Your task to perform on an android device: Open Android settings Image 0: 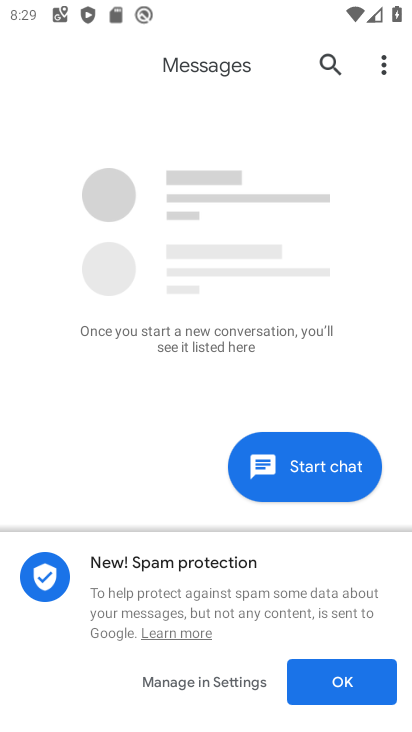
Step 0: press back button
Your task to perform on an android device: Open Android settings Image 1: 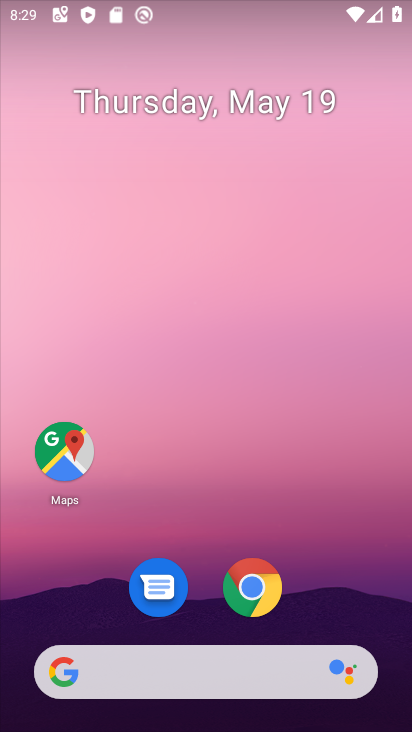
Step 1: drag from (322, 594) to (238, 26)
Your task to perform on an android device: Open Android settings Image 2: 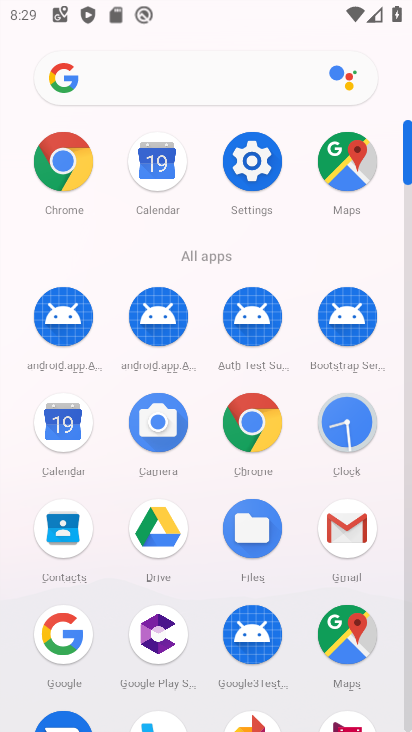
Step 2: drag from (11, 590) to (4, 247)
Your task to perform on an android device: Open Android settings Image 3: 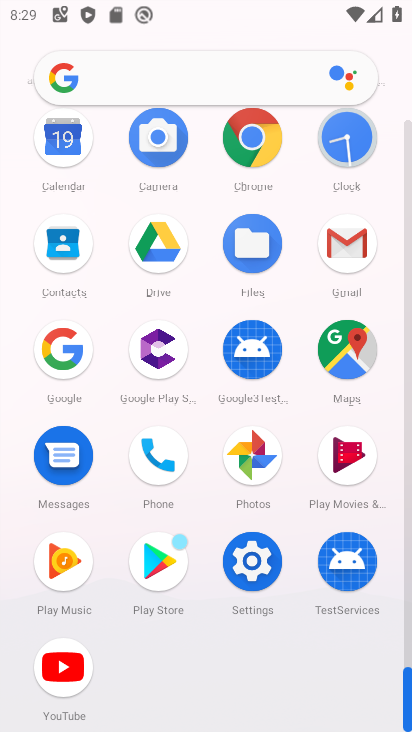
Step 3: click (251, 557)
Your task to perform on an android device: Open Android settings Image 4: 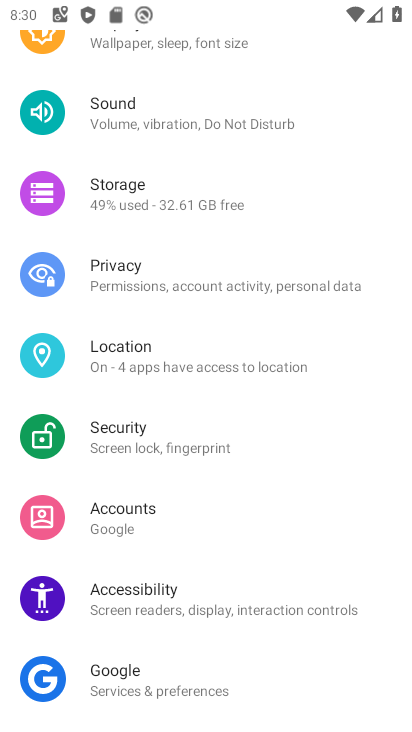
Step 4: drag from (254, 634) to (280, 120)
Your task to perform on an android device: Open Android settings Image 5: 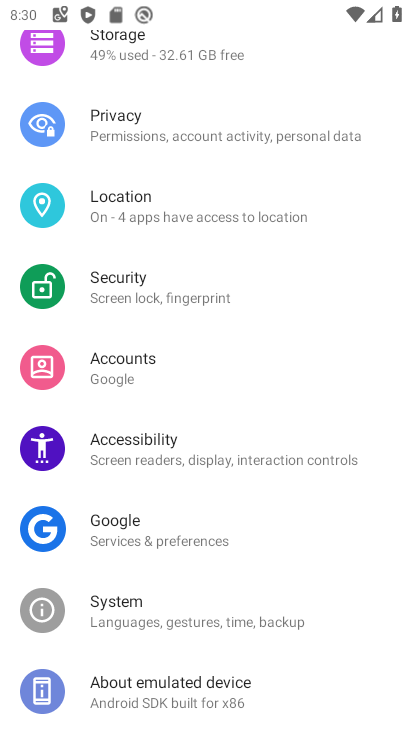
Step 5: click (177, 693)
Your task to perform on an android device: Open Android settings Image 6: 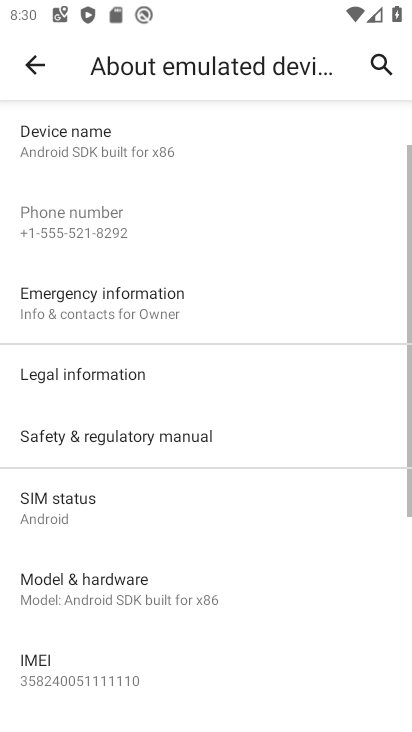
Step 6: task complete